Your task to perform on an android device: change the clock display to show seconds Image 0: 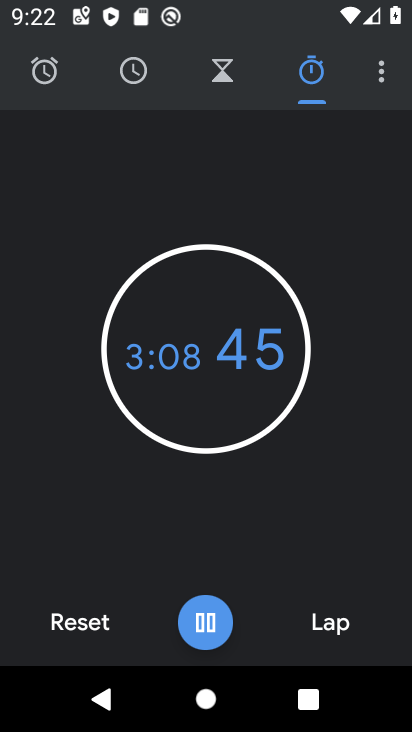
Step 0: click (87, 633)
Your task to perform on an android device: change the clock display to show seconds Image 1: 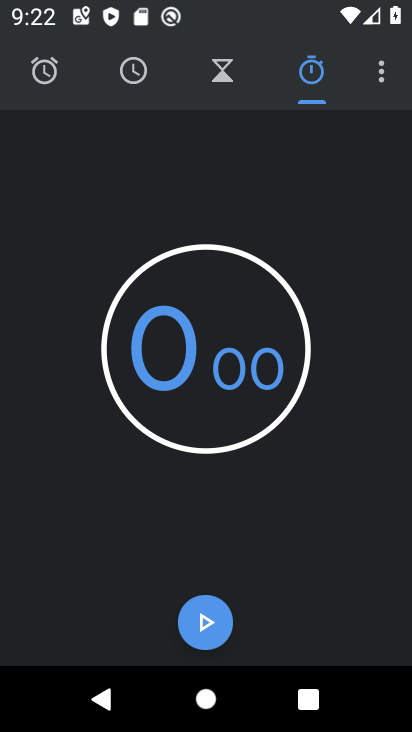
Step 1: click (383, 80)
Your task to perform on an android device: change the clock display to show seconds Image 2: 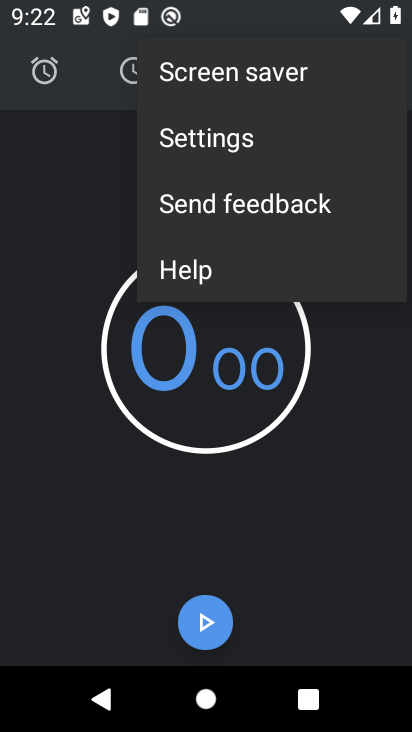
Step 2: click (241, 156)
Your task to perform on an android device: change the clock display to show seconds Image 3: 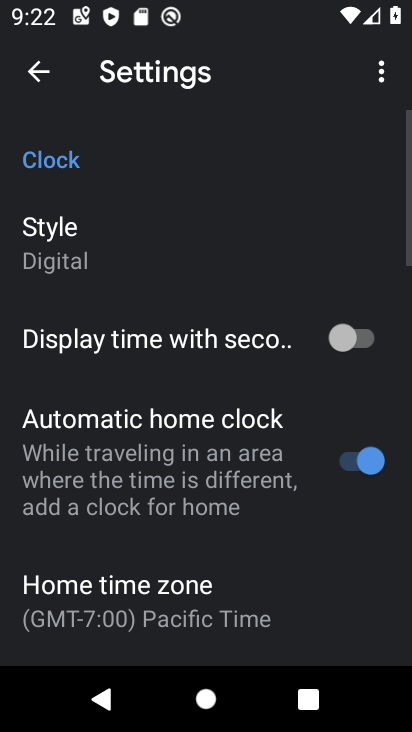
Step 3: click (66, 239)
Your task to perform on an android device: change the clock display to show seconds Image 4: 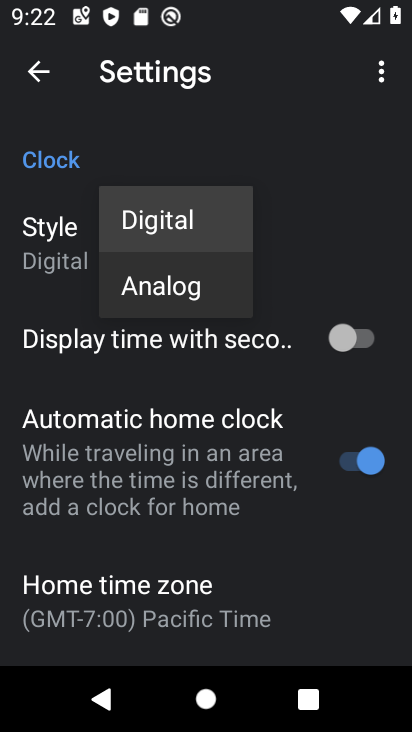
Step 4: click (143, 287)
Your task to perform on an android device: change the clock display to show seconds Image 5: 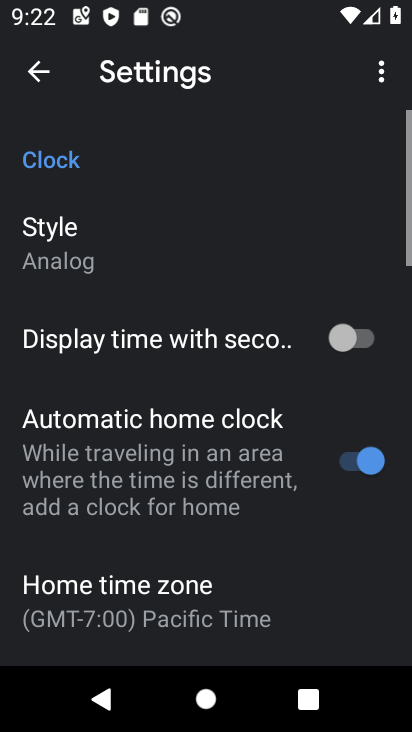
Step 5: click (373, 336)
Your task to perform on an android device: change the clock display to show seconds Image 6: 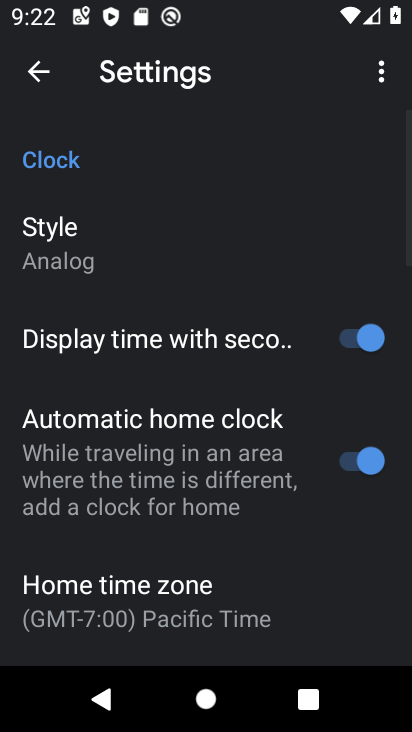
Step 6: task complete